Your task to perform on an android device: see tabs open on other devices in the chrome app Image 0: 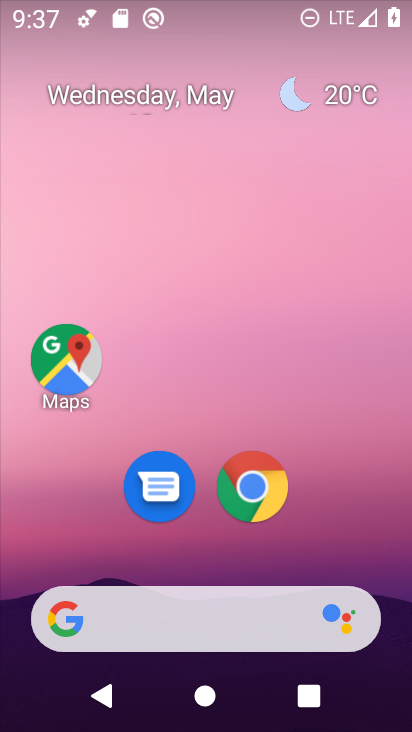
Step 0: click (252, 497)
Your task to perform on an android device: see tabs open on other devices in the chrome app Image 1: 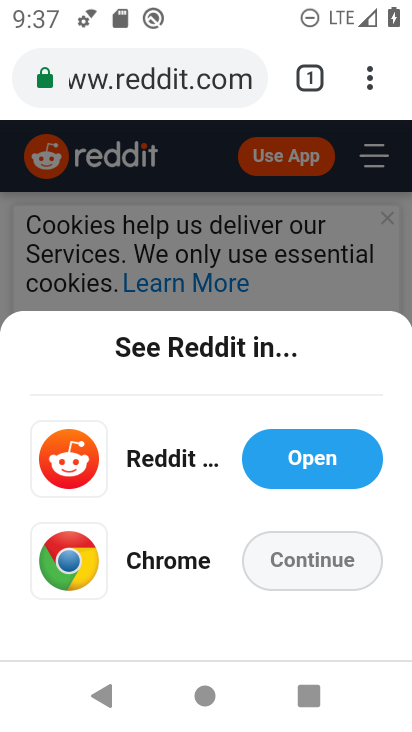
Step 1: click (366, 85)
Your task to perform on an android device: see tabs open on other devices in the chrome app Image 2: 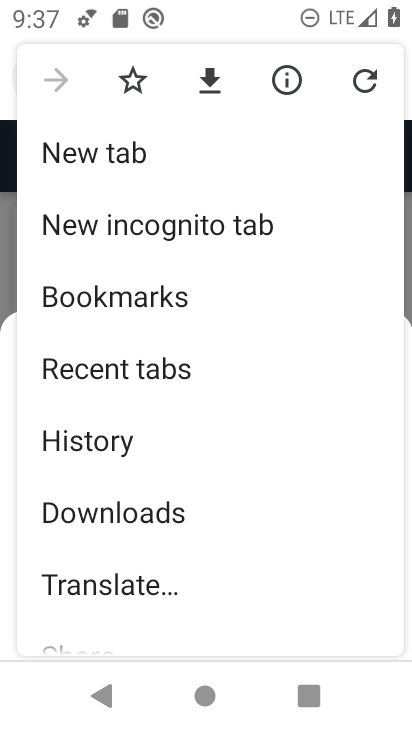
Step 2: click (80, 363)
Your task to perform on an android device: see tabs open on other devices in the chrome app Image 3: 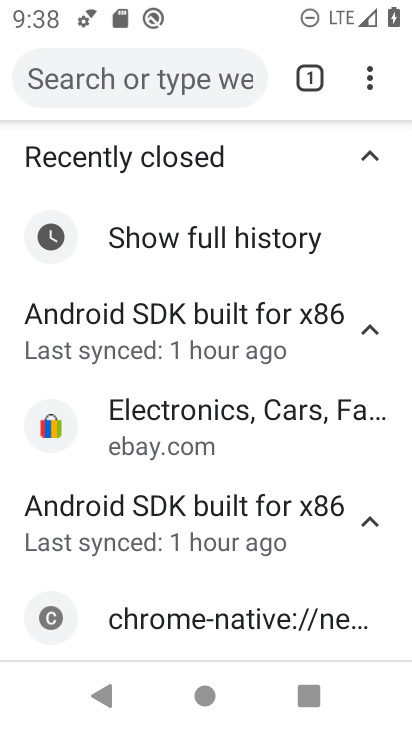
Step 3: task complete